Your task to perform on an android device: Go to Reddit.com Image 0: 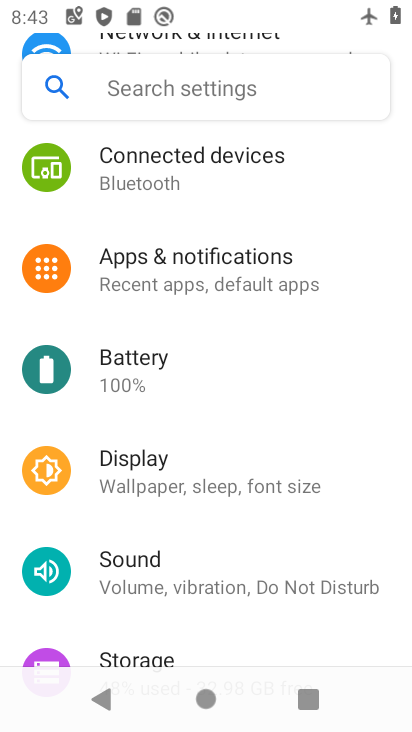
Step 0: press home button
Your task to perform on an android device: Go to Reddit.com Image 1: 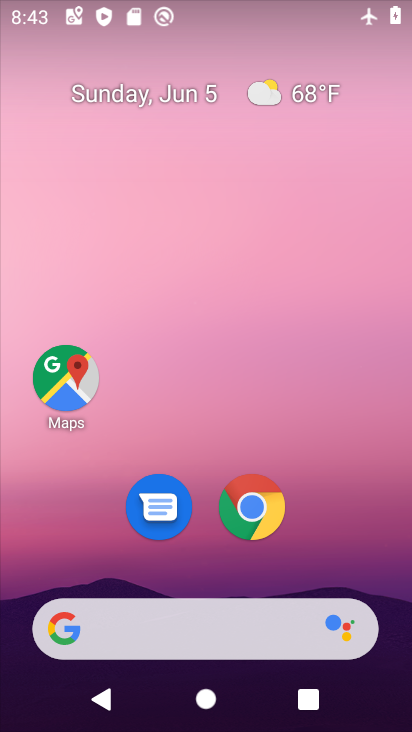
Step 1: click (264, 506)
Your task to perform on an android device: Go to Reddit.com Image 2: 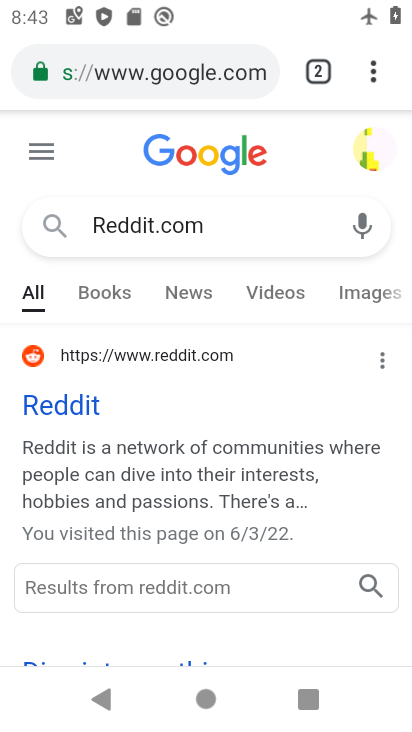
Step 2: click (78, 396)
Your task to perform on an android device: Go to Reddit.com Image 3: 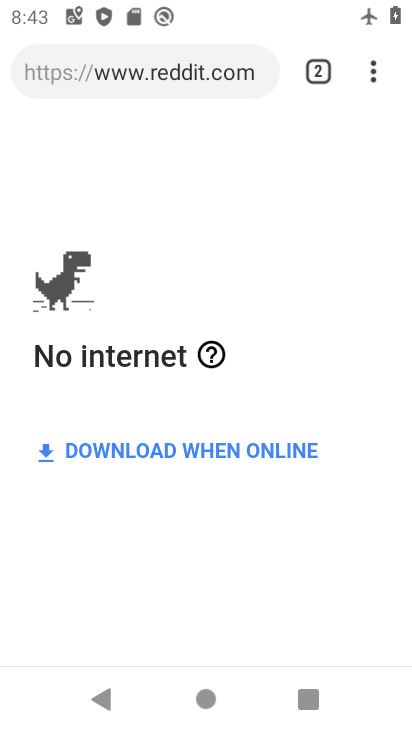
Step 3: task complete